Your task to perform on an android device: open device folders in google photos Image 0: 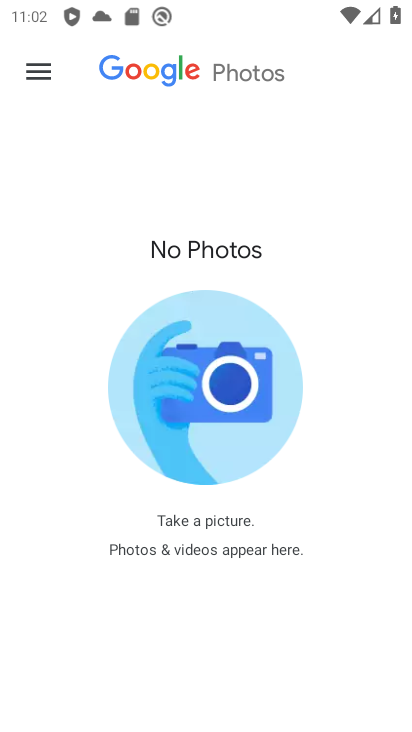
Step 0: press home button
Your task to perform on an android device: open device folders in google photos Image 1: 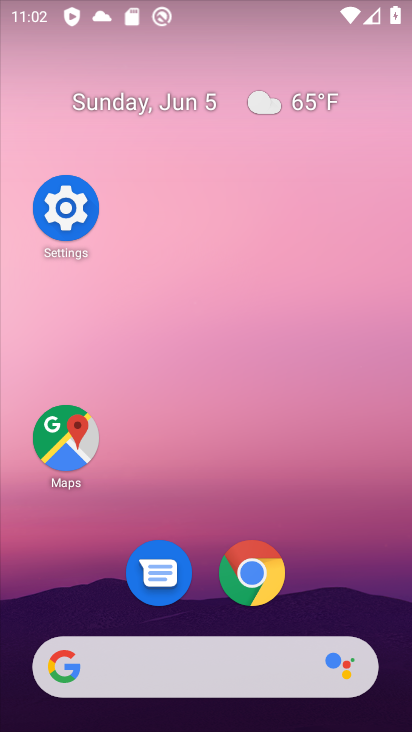
Step 1: drag from (302, 526) to (284, 172)
Your task to perform on an android device: open device folders in google photos Image 2: 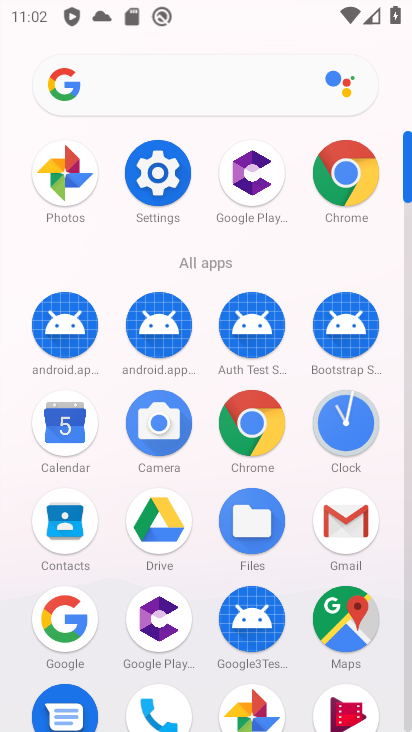
Step 2: click (243, 714)
Your task to perform on an android device: open device folders in google photos Image 3: 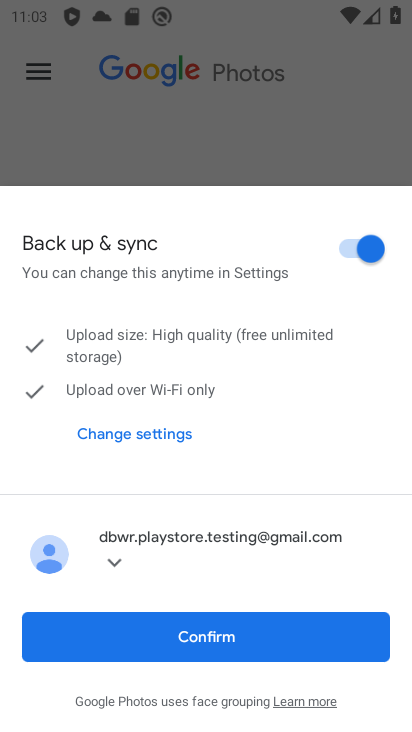
Step 3: click (353, 625)
Your task to perform on an android device: open device folders in google photos Image 4: 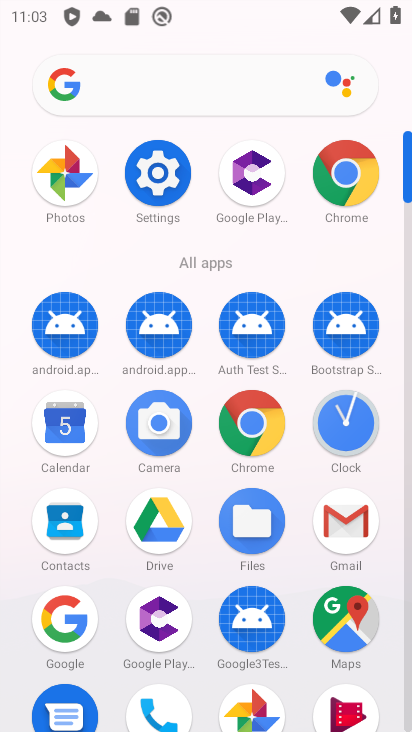
Step 4: click (83, 188)
Your task to perform on an android device: open device folders in google photos Image 5: 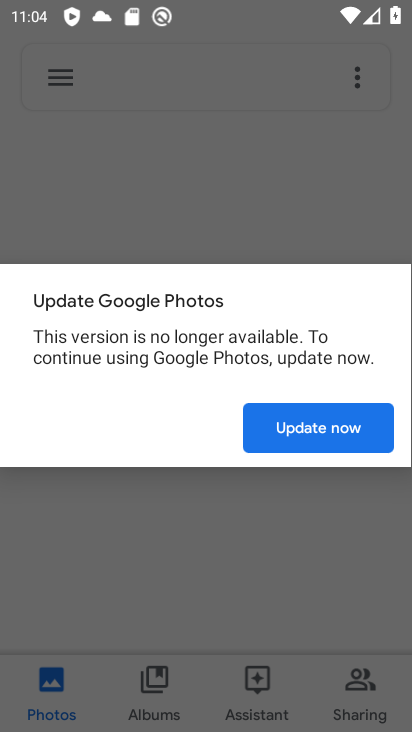
Step 5: click (318, 420)
Your task to perform on an android device: open device folders in google photos Image 6: 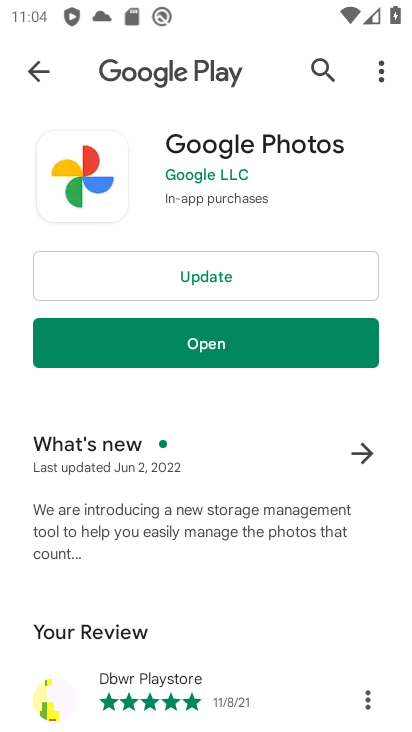
Step 6: click (194, 257)
Your task to perform on an android device: open device folders in google photos Image 7: 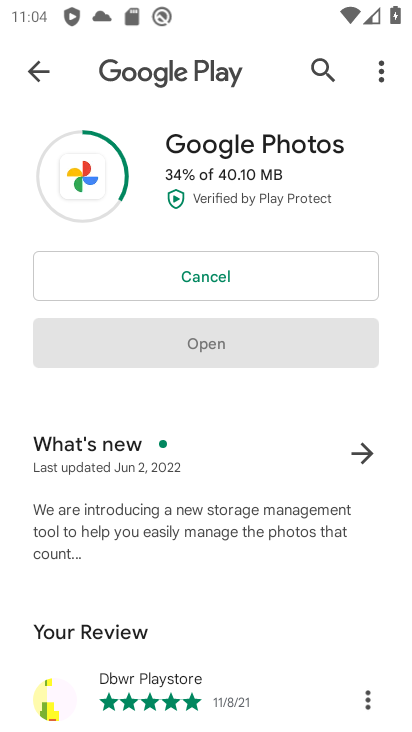
Step 7: click (227, 268)
Your task to perform on an android device: open device folders in google photos Image 8: 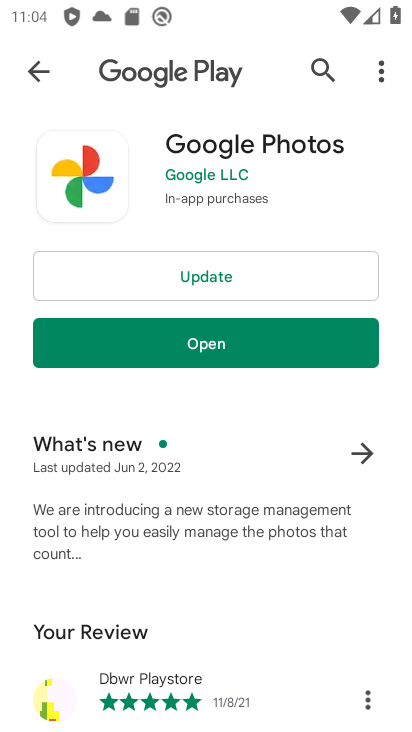
Step 8: click (261, 332)
Your task to perform on an android device: open device folders in google photos Image 9: 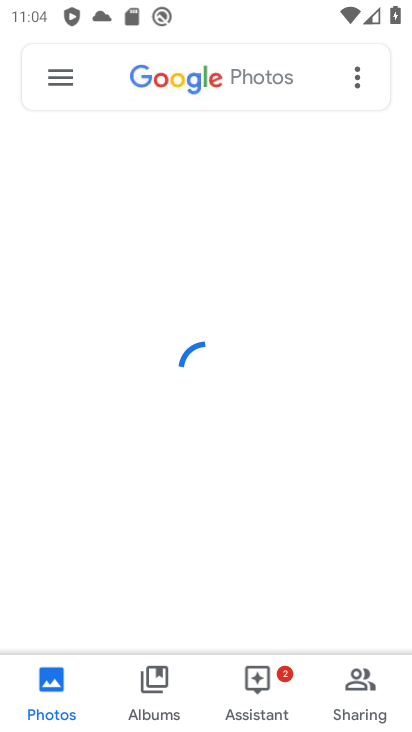
Step 9: click (68, 97)
Your task to perform on an android device: open device folders in google photos Image 10: 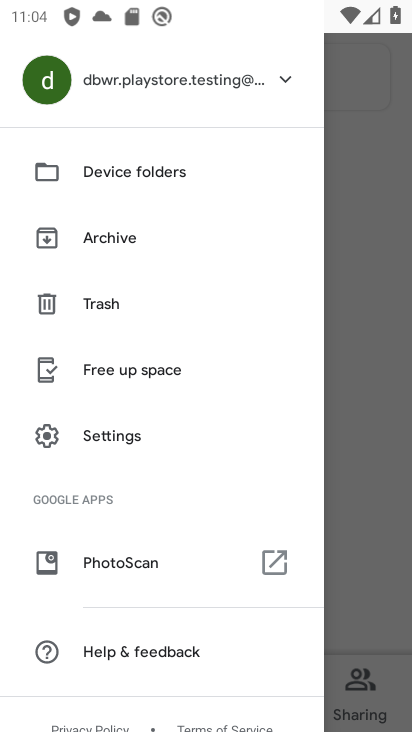
Step 10: click (120, 171)
Your task to perform on an android device: open device folders in google photos Image 11: 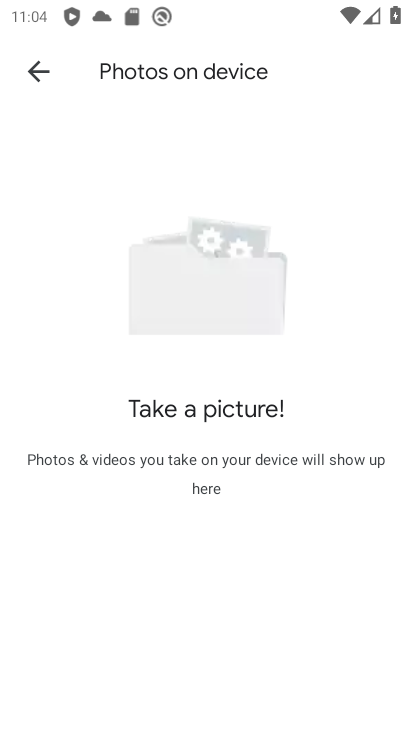
Step 11: task complete